Your task to perform on an android device: turn on sleep mode Image 0: 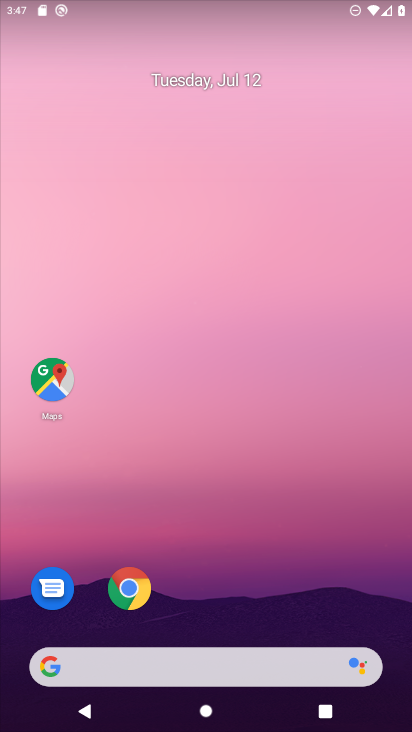
Step 0: drag from (205, 620) to (285, 3)
Your task to perform on an android device: turn on sleep mode Image 1: 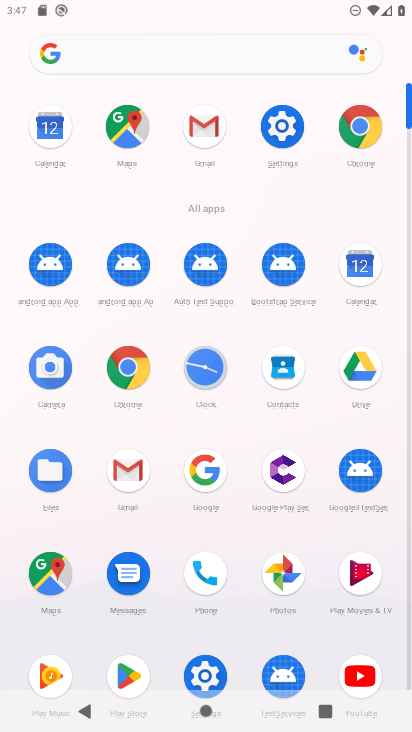
Step 1: click (286, 125)
Your task to perform on an android device: turn on sleep mode Image 2: 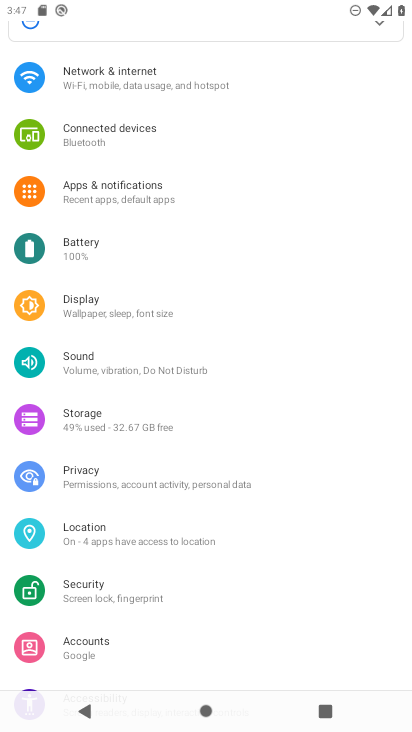
Step 2: click (169, 316)
Your task to perform on an android device: turn on sleep mode Image 3: 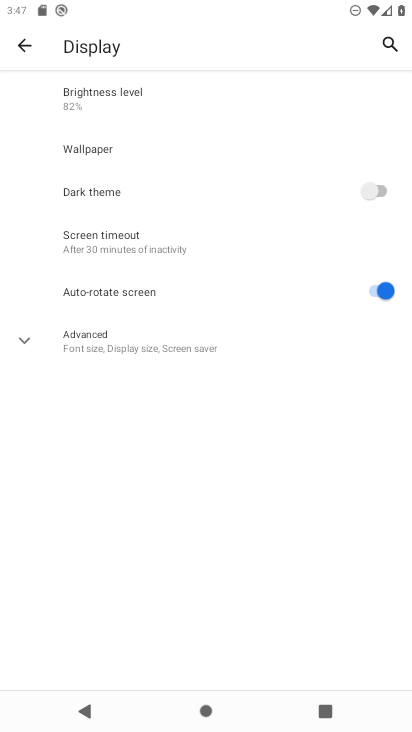
Step 3: click (327, 337)
Your task to perform on an android device: turn on sleep mode Image 4: 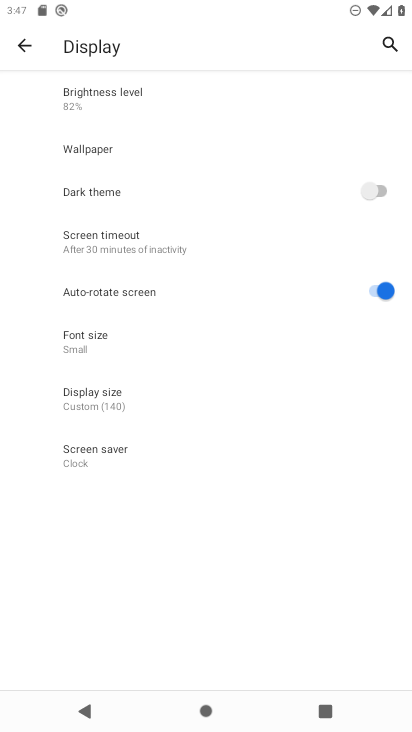
Step 4: task complete